Your task to perform on an android device: What's the weather going to be tomorrow? Image 0: 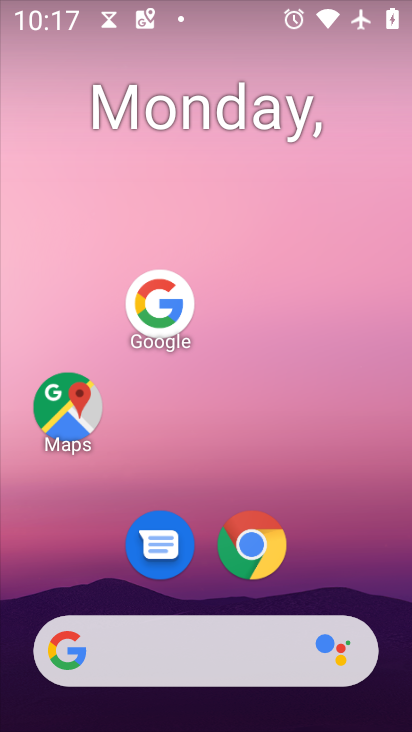
Step 0: press home button
Your task to perform on an android device: What's the weather going to be tomorrow? Image 1: 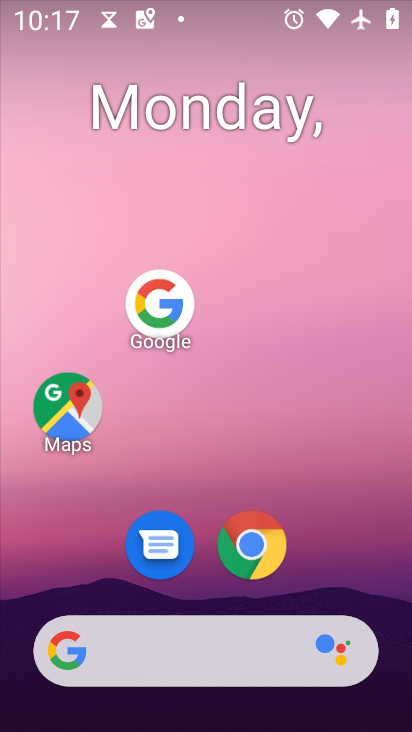
Step 1: click (78, 663)
Your task to perform on an android device: What's the weather going to be tomorrow? Image 2: 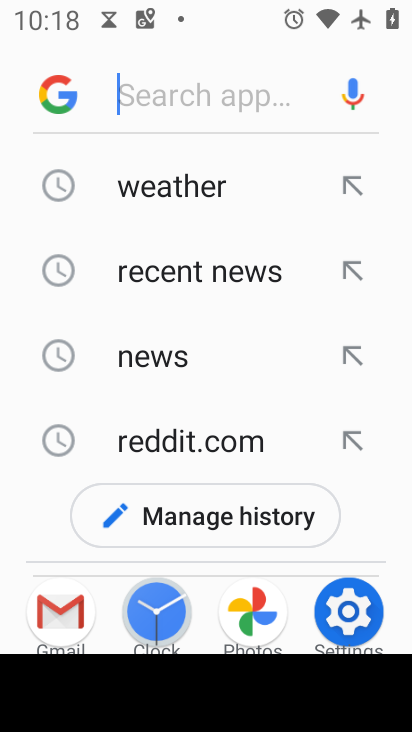
Step 2: click (182, 180)
Your task to perform on an android device: What's the weather going to be tomorrow? Image 3: 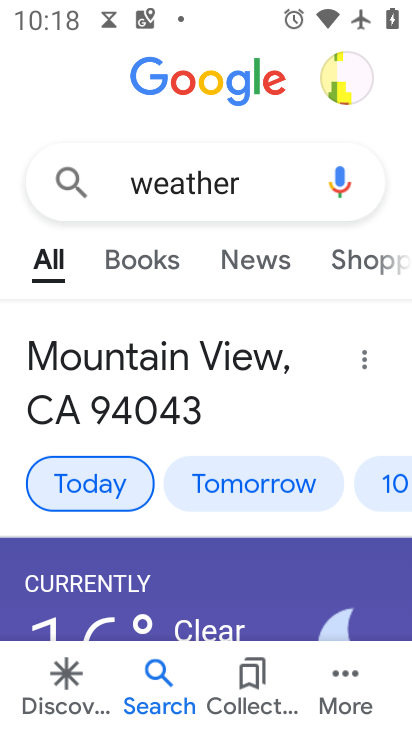
Step 3: click (250, 479)
Your task to perform on an android device: What's the weather going to be tomorrow? Image 4: 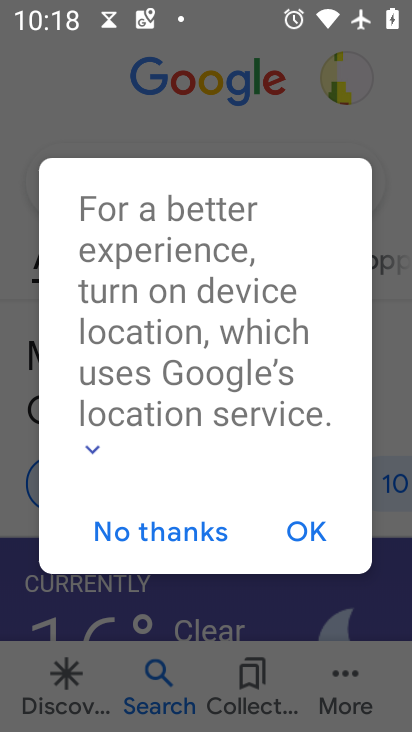
Step 4: click (303, 534)
Your task to perform on an android device: What's the weather going to be tomorrow? Image 5: 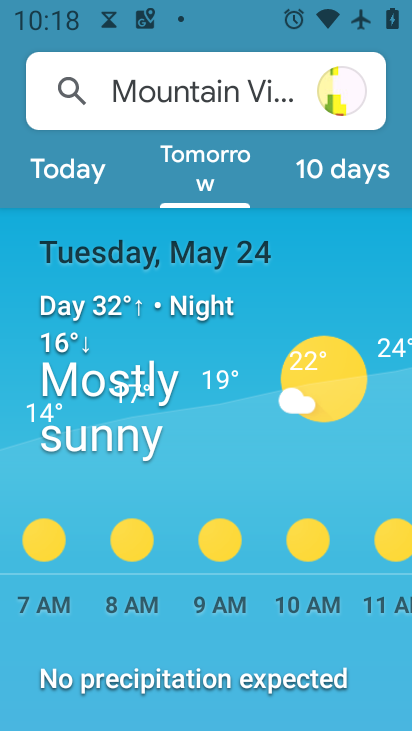
Step 5: task complete